Your task to perform on an android device: change the clock display to digital Image 0: 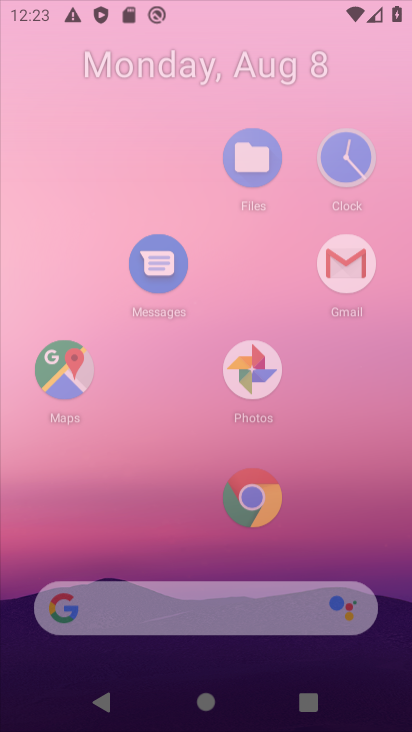
Step 0: drag from (184, 553) to (177, 274)
Your task to perform on an android device: change the clock display to digital Image 1: 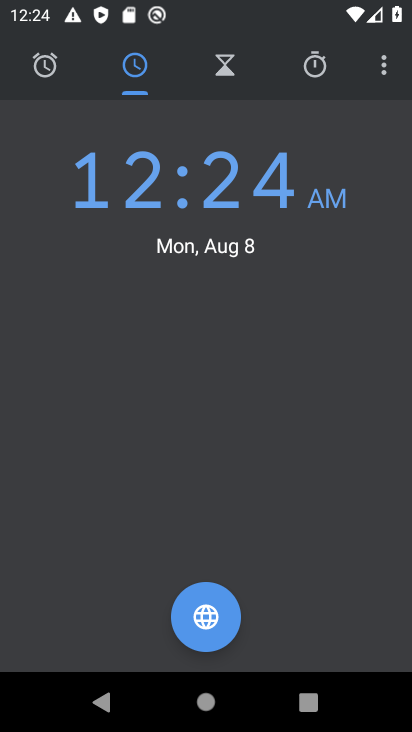
Step 1: press home button
Your task to perform on an android device: change the clock display to digital Image 2: 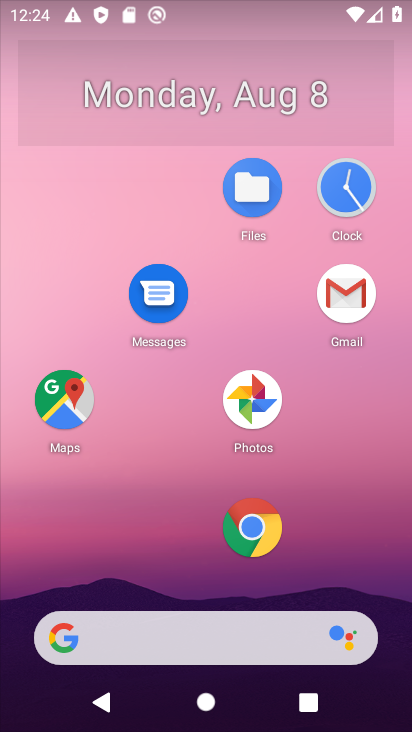
Step 2: drag from (197, 531) to (212, 41)
Your task to perform on an android device: change the clock display to digital Image 3: 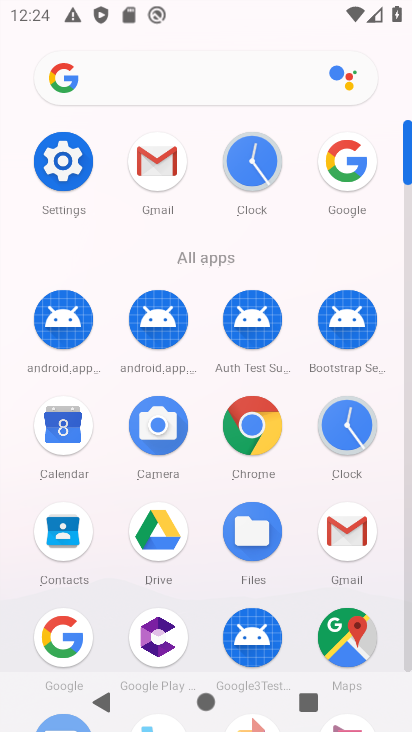
Step 3: click (257, 174)
Your task to perform on an android device: change the clock display to digital Image 4: 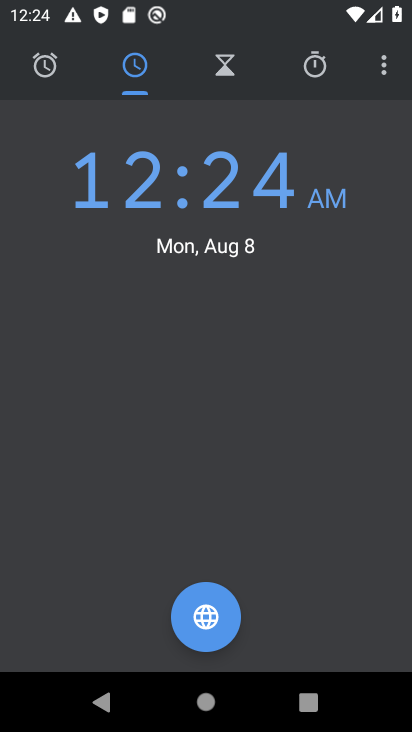
Step 4: click (384, 72)
Your task to perform on an android device: change the clock display to digital Image 5: 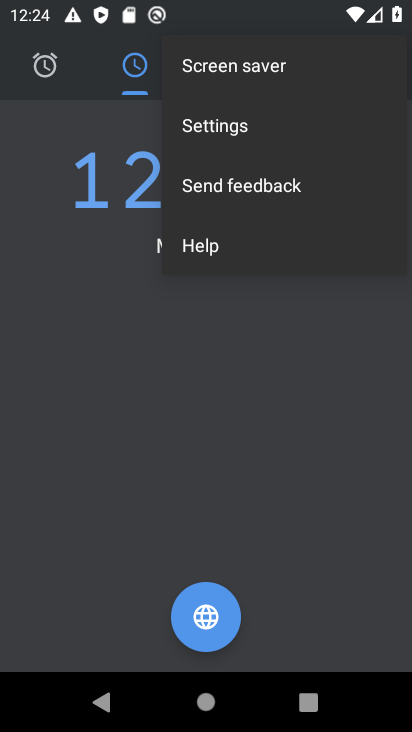
Step 5: click (247, 129)
Your task to perform on an android device: change the clock display to digital Image 6: 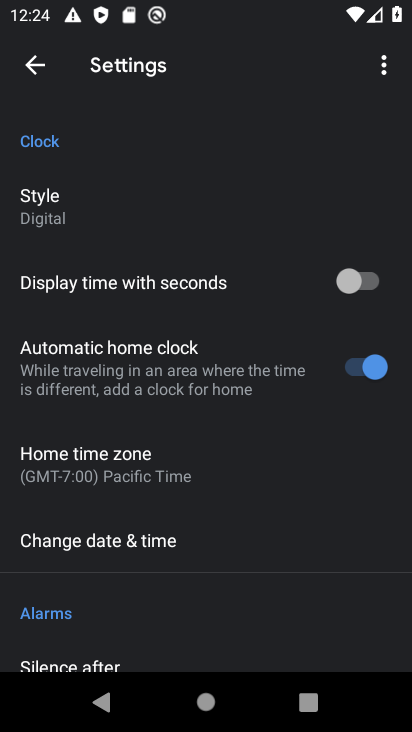
Step 6: click (75, 212)
Your task to perform on an android device: change the clock display to digital Image 7: 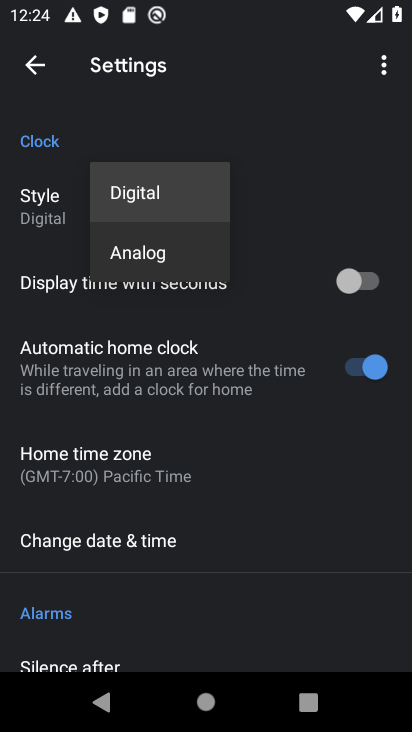
Step 7: click (127, 206)
Your task to perform on an android device: change the clock display to digital Image 8: 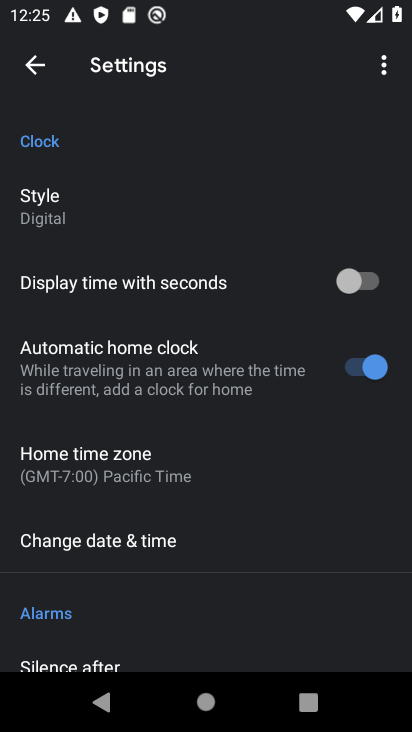
Step 8: task complete